Your task to perform on an android device: What's on my calendar tomorrow? Image 0: 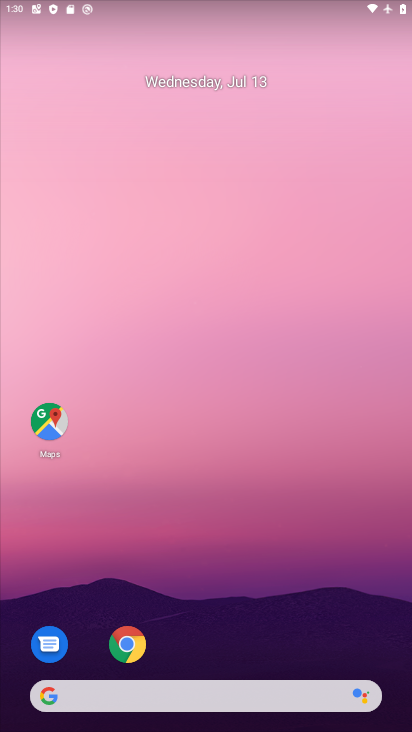
Step 0: drag from (323, 587) to (241, 98)
Your task to perform on an android device: What's on my calendar tomorrow? Image 1: 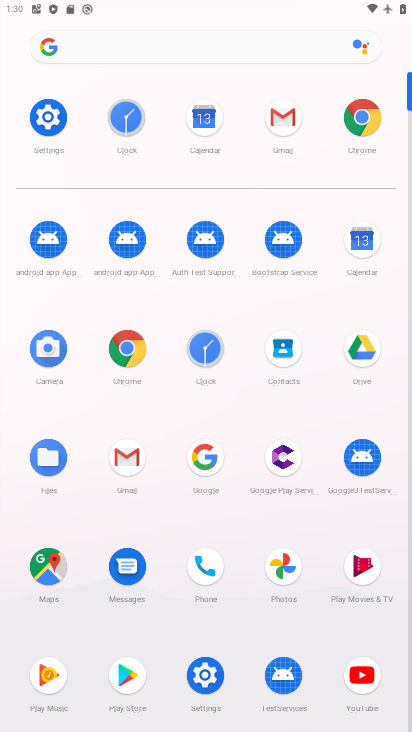
Step 1: click (362, 242)
Your task to perform on an android device: What's on my calendar tomorrow? Image 2: 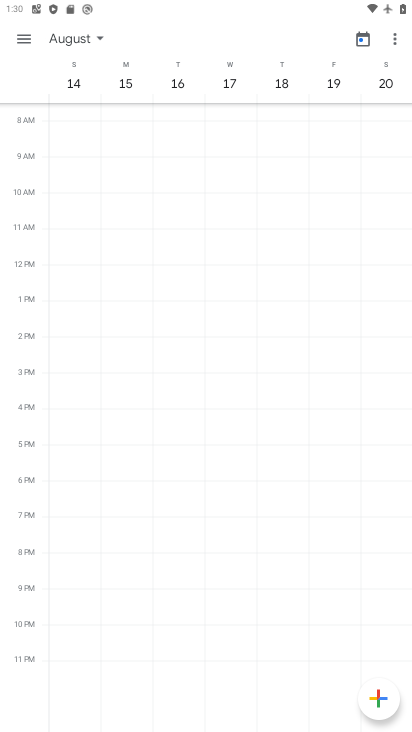
Step 2: click (87, 34)
Your task to perform on an android device: What's on my calendar tomorrow? Image 3: 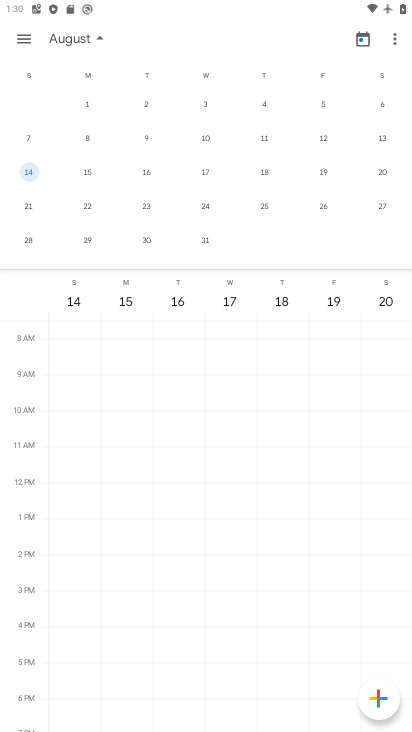
Step 3: drag from (29, 135) to (381, 155)
Your task to perform on an android device: What's on my calendar tomorrow? Image 4: 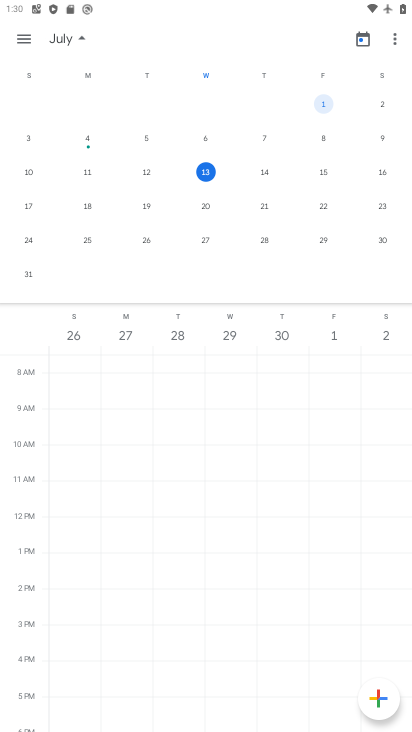
Step 4: click (269, 171)
Your task to perform on an android device: What's on my calendar tomorrow? Image 5: 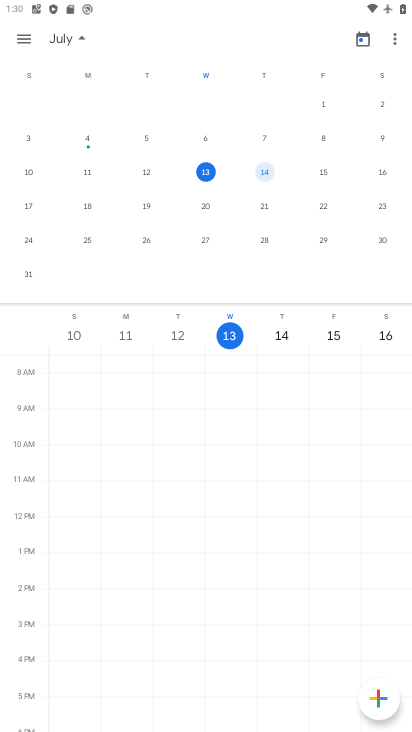
Step 5: click (281, 347)
Your task to perform on an android device: What's on my calendar tomorrow? Image 6: 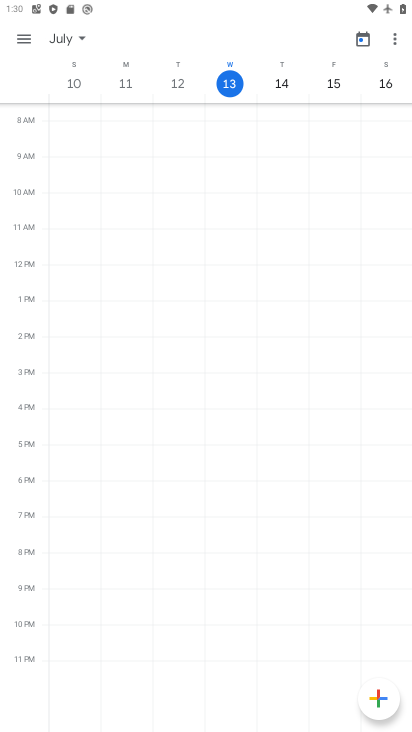
Step 6: task complete